Your task to perform on an android device: turn off priority inbox in the gmail app Image 0: 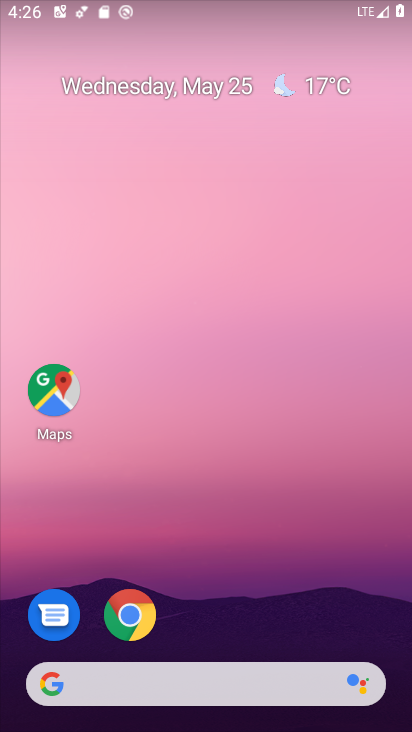
Step 0: drag from (261, 528) to (176, 13)
Your task to perform on an android device: turn off priority inbox in the gmail app Image 1: 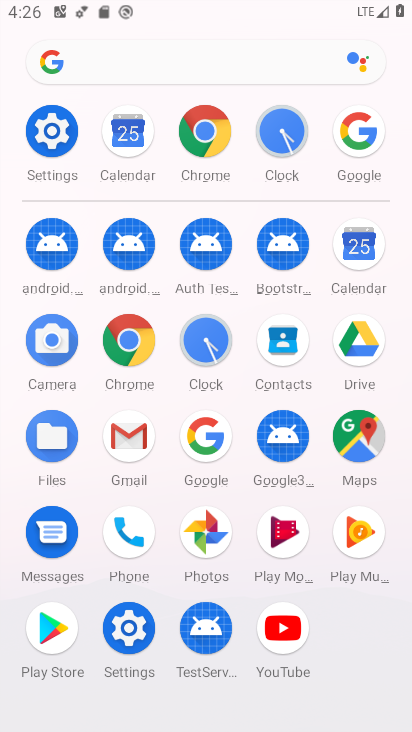
Step 1: click (120, 439)
Your task to perform on an android device: turn off priority inbox in the gmail app Image 2: 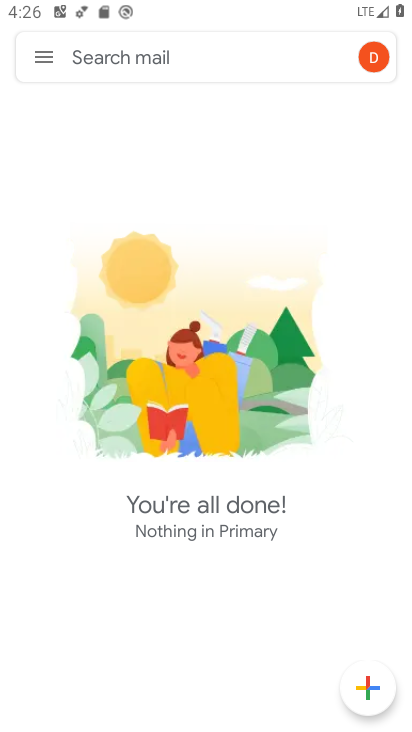
Step 2: click (42, 71)
Your task to perform on an android device: turn off priority inbox in the gmail app Image 3: 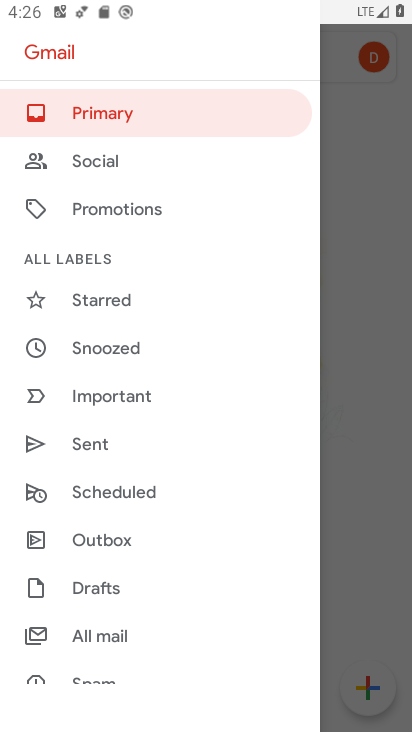
Step 3: click (148, 519)
Your task to perform on an android device: turn off priority inbox in the gmail app Image 4: 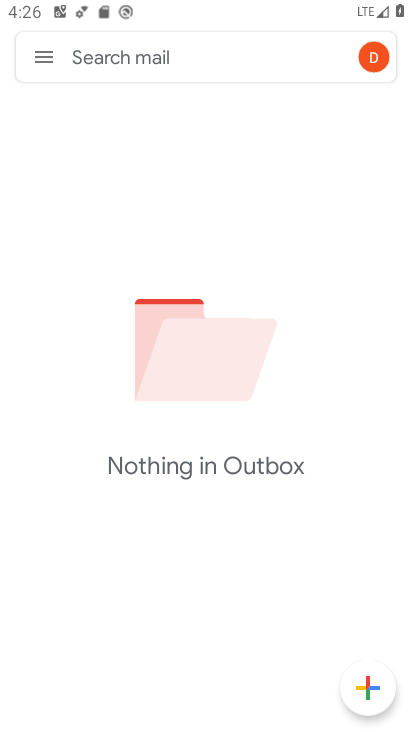
Step 4: click (54, 56)
Your task to perform on an android device: turn off priority inbox in the gmail app Image 5: 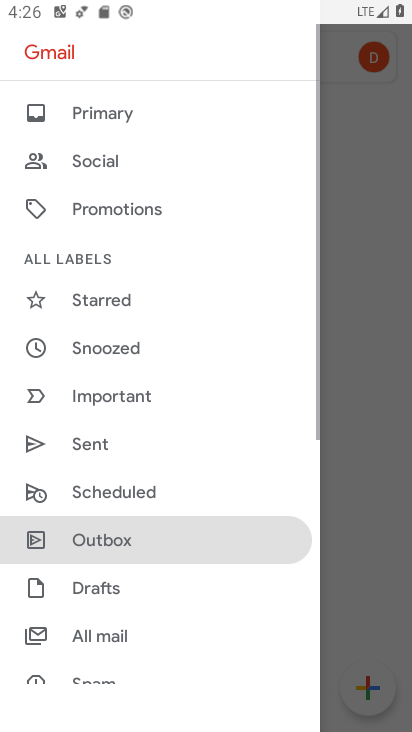
Step 5: drag from (136, 564) to (159, 95)
Your task to perform on an android device: turn off priority inbox in the gmail app Image 6: 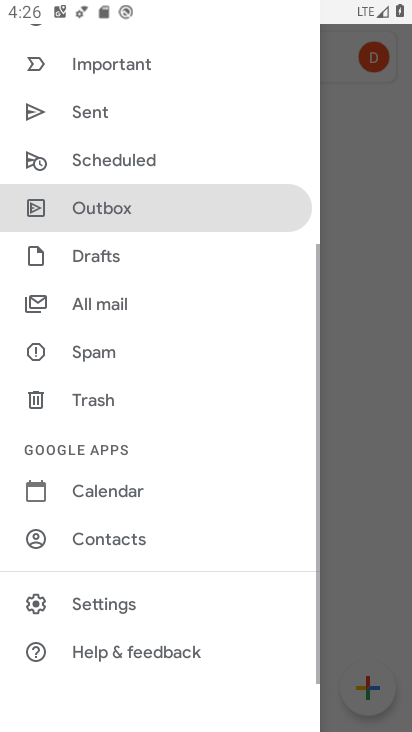
Step 6: click (123, 597)
Your task to perform on an android device: turn off priority inbox in the gmail app Image 7: 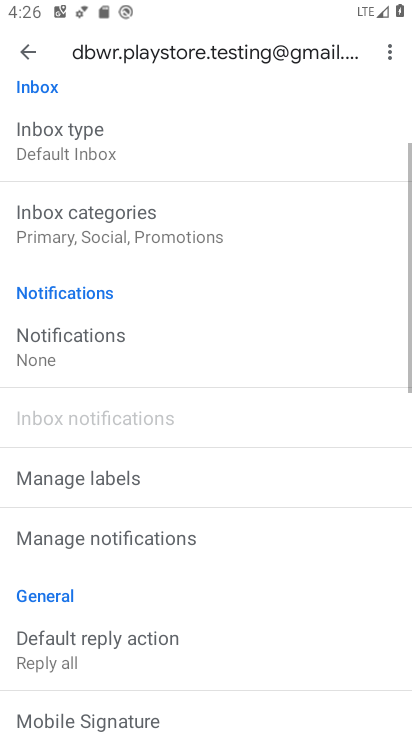
Step 7: click (141, 148)
Your task to perform on an android device: turn off priority inbox in the gmail app Image 8: 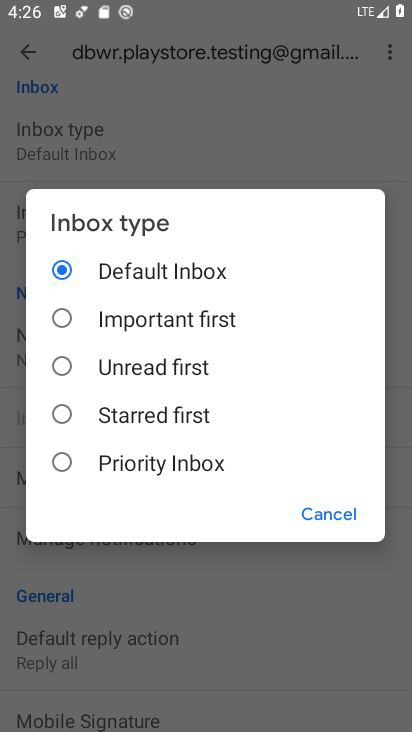
Step 8: task complete